Your task to perform on an android device: change the clock style Image 0: 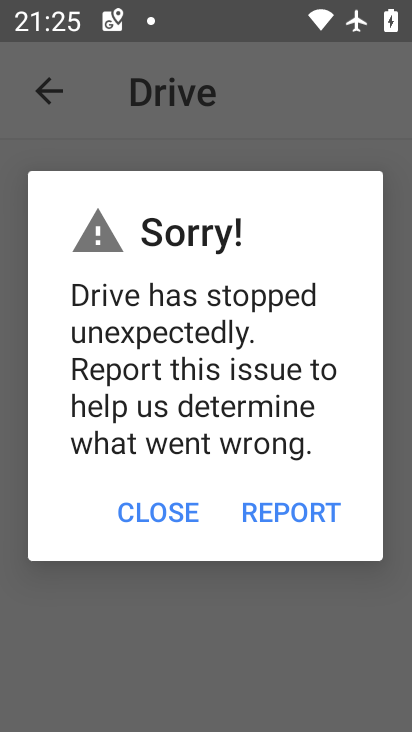
Step 0: press home button
Your task to perform on an android device: change the clock style Image 1: 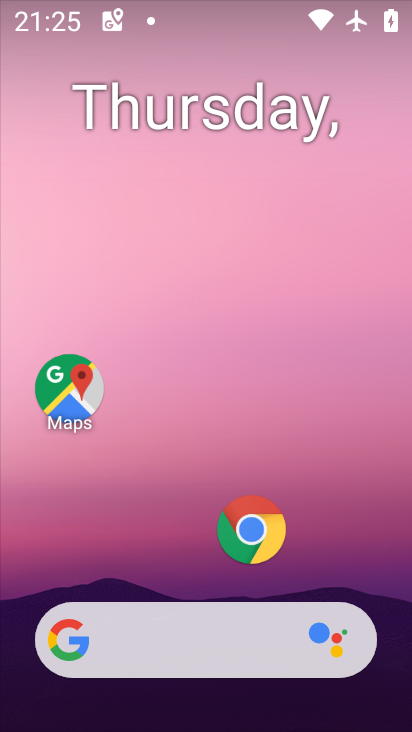
Step 1: drag from (200, 588) to (166, 59)
Your task to perform on an android device: change the clock style Image 2: 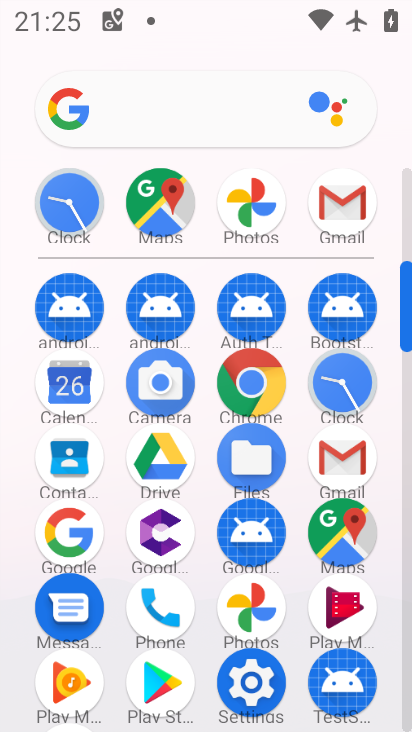
Step 2: click (336, 374)
Your task to perform on an android device: change the clock style Image 3: 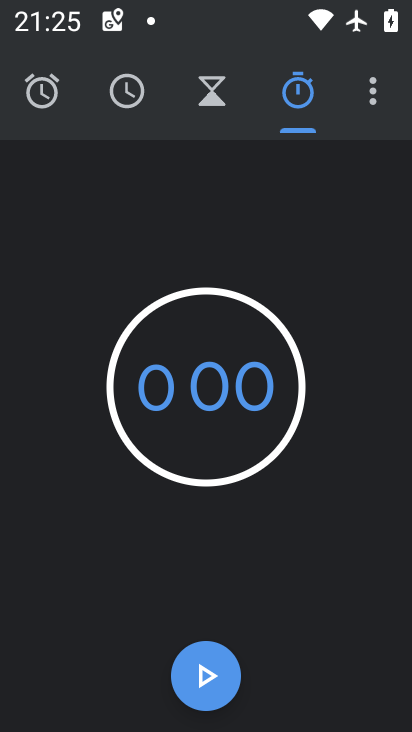
Step 3: click (373, 86)
Your task to perform on an android device: change the clock style Image 4: 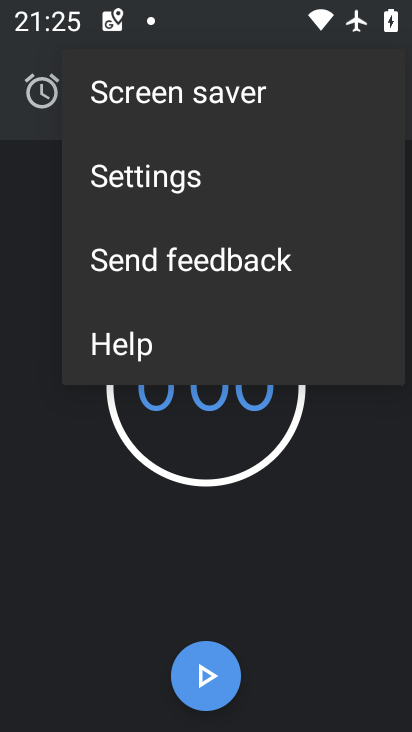
Step 4: click (216, 173)
Your task to perform on an android device: change the clock style Image 5: 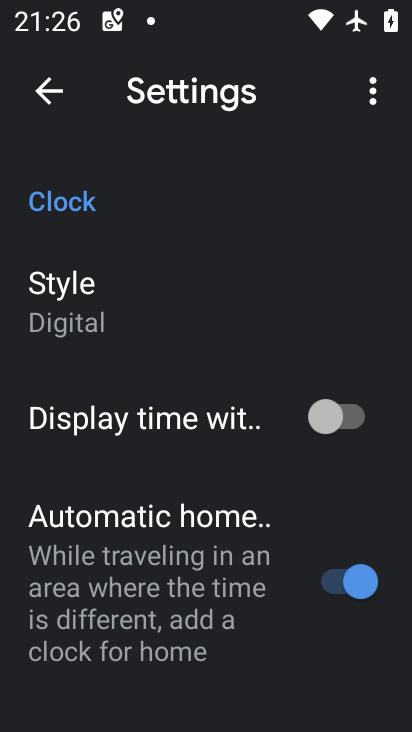
Step 5: drag from (232, 673) to (212, 142)
Your task to perform on an android device: change the clock style Image 6: 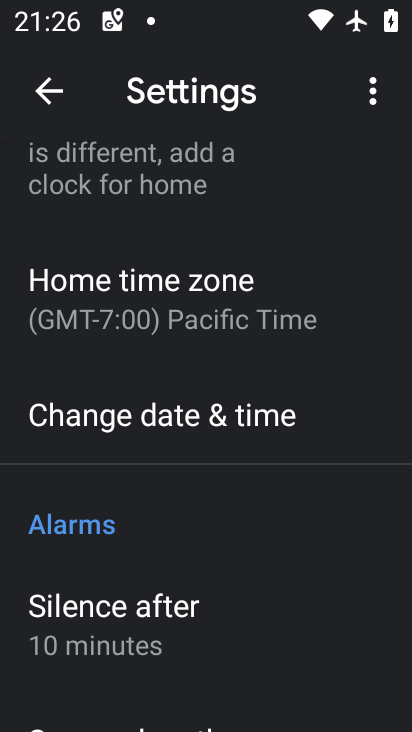
Step 6: drag from (173, 177) to (202, 721)
Your task to perform on an android device: change the clock style Image 7: 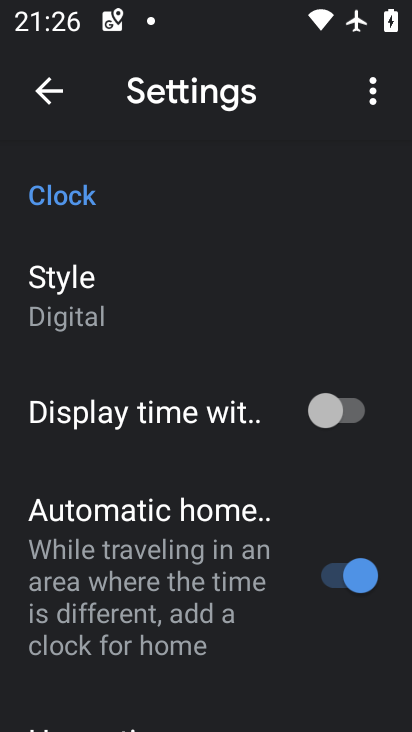
Step 7: click (108, 292)
Your task to perform on an android device: change the clock style Image 8: 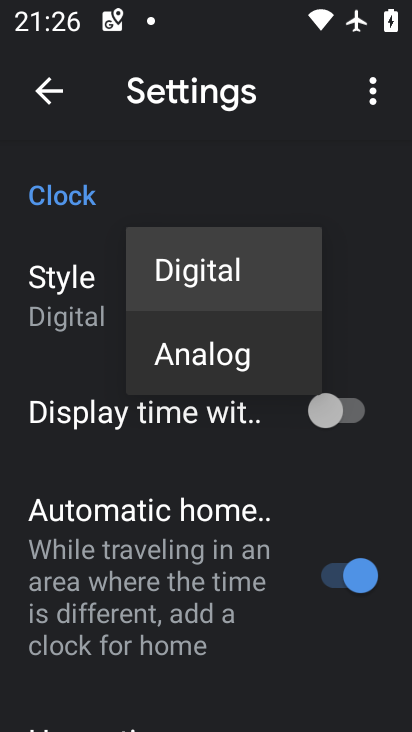
Step 8: click (211, 359)
Your task to perform on an android device: change the clock style Image 9: 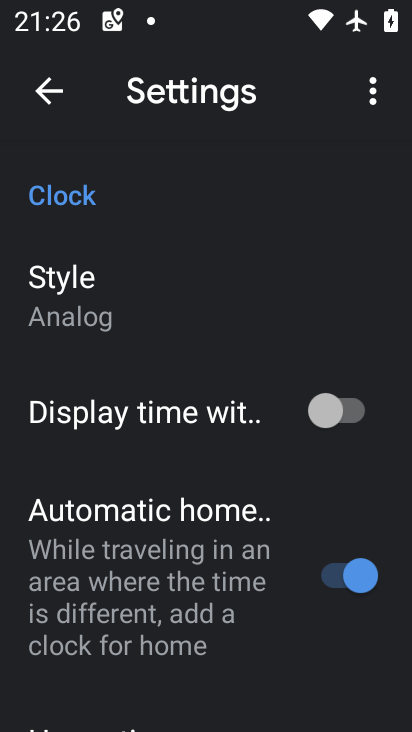
Step 9: task complete